Your task to perform on an android device: set an alarm Image 0: 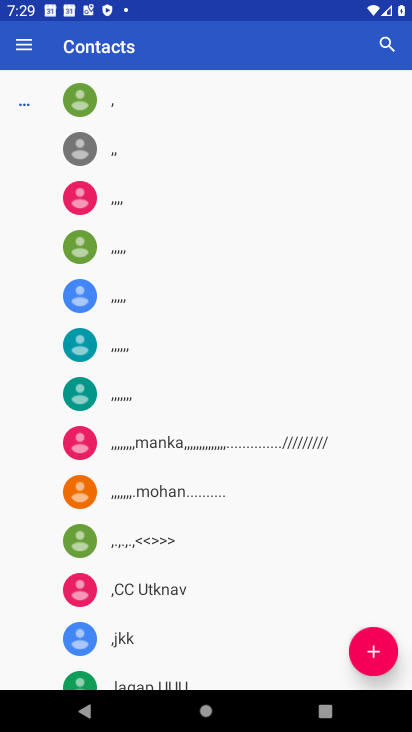
Step 0: press home button
Your task to perform on an android device: set an alarm Image 1: 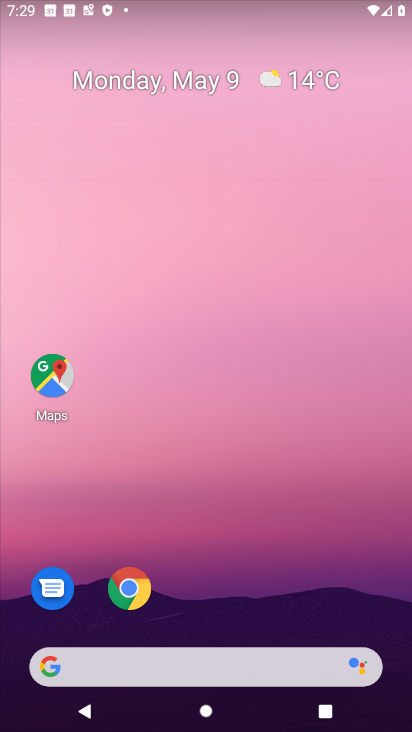
Step 1: drag from (348, 612) to (302, 100)
Your task to perform on an android device: set an alarm Image 2: 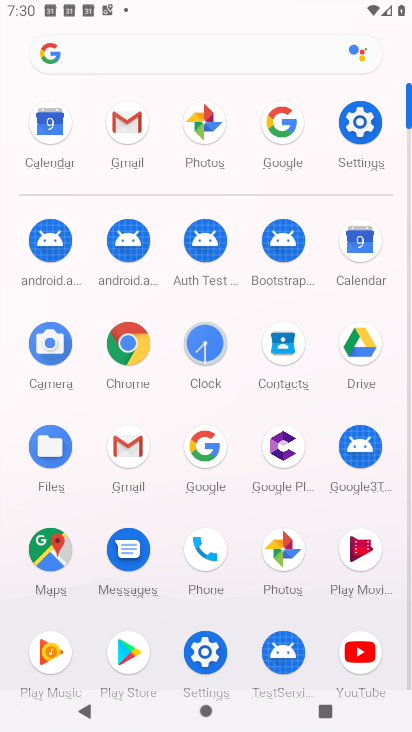
Step 2: click (203, 360)
Your task to perform on an android device: set an alarm Image 3: 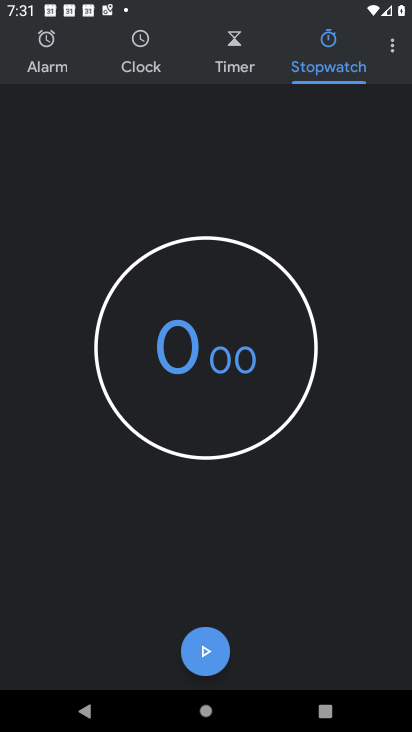
Step 3: click (44, 42)
Your task to perform on an android device: set an alarm Image 4: 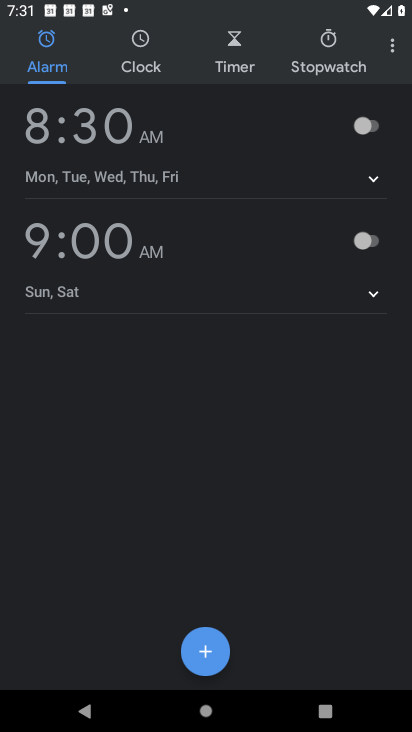
Step 4: click (348, 124)
Your task to perform on an android device: set an alarm Image 5: 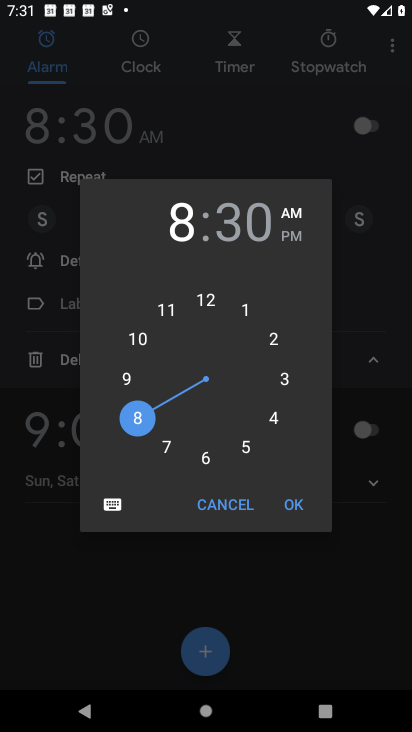
Step 5: click (225, 485)
Your task to perform on an android device: set an alarm Image 6: 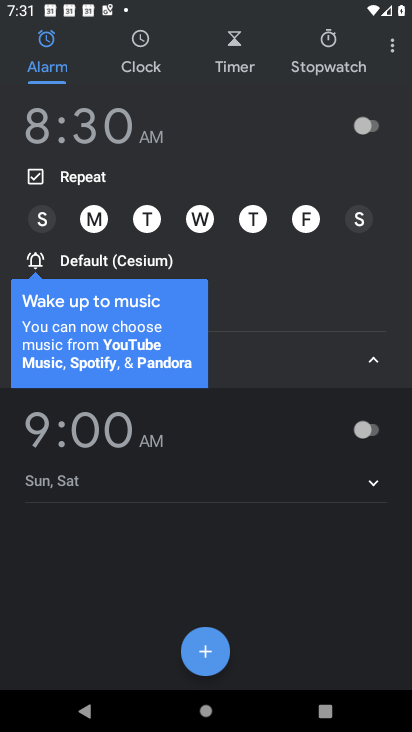
Step 6: click (364, 135)
Your task to perform on an android device: set an alarm Image 7: 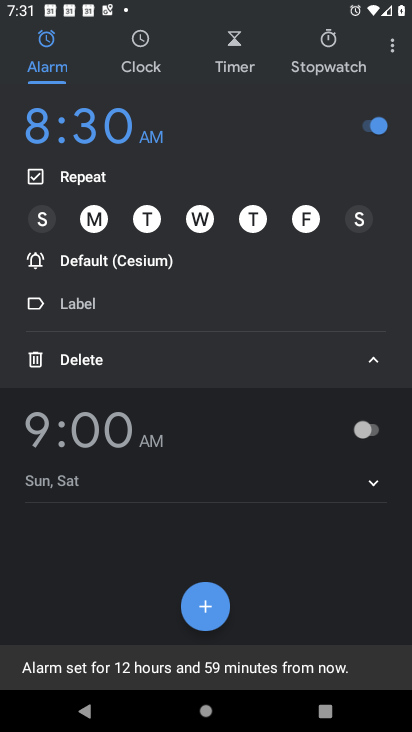
Step 7: task complete